Your task to perform on an android device: Go to sound settings Image 0: 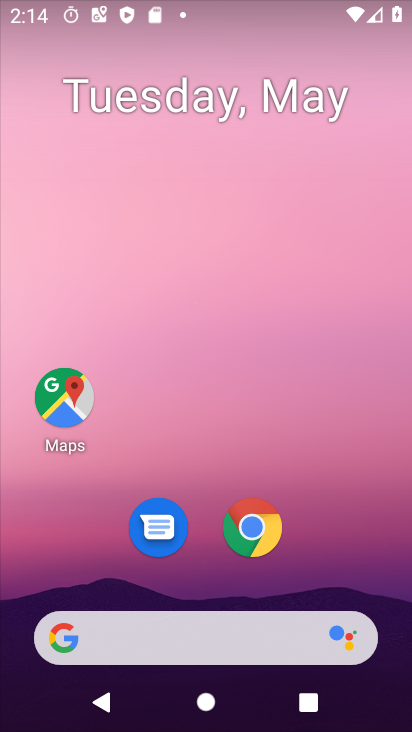
Step 0: drag from (233, 657) to (249, 115)
Your task to perform on an android device: Go to sound settings Image 1: 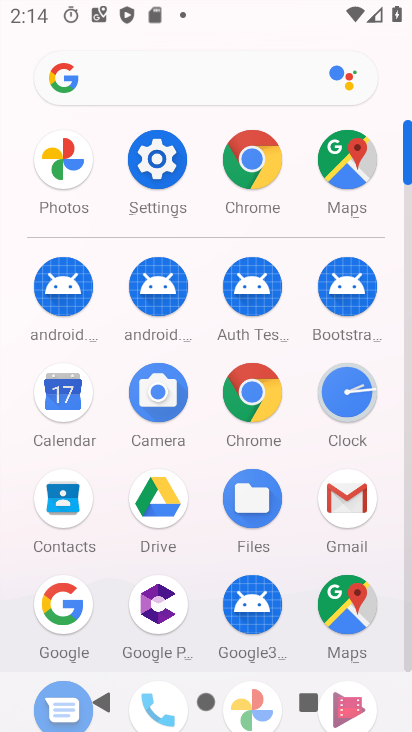
Step 1: click (155, 182)
Your task to perform on an android device: Go to sound settings Image 2: 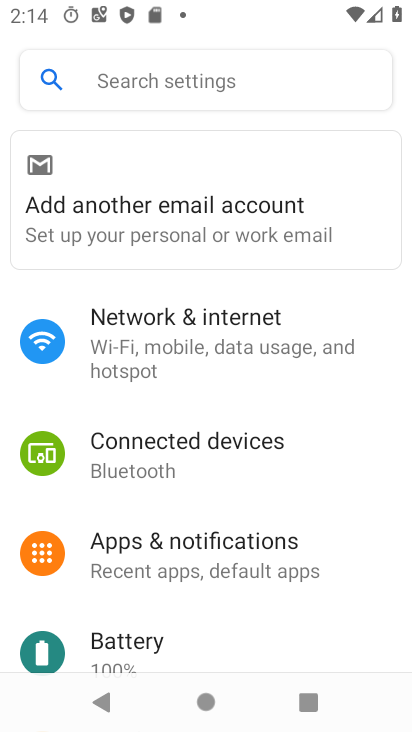
Step 2: click (167, 87)
Your task to perform on an android device: Go to sound settings Image 3: 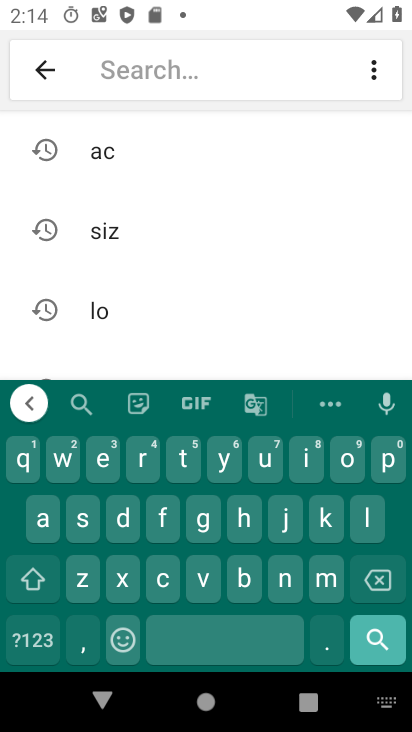
Step 3: click (82, 517)
Your task to perform on an android device: Go to sound settings Image 4: 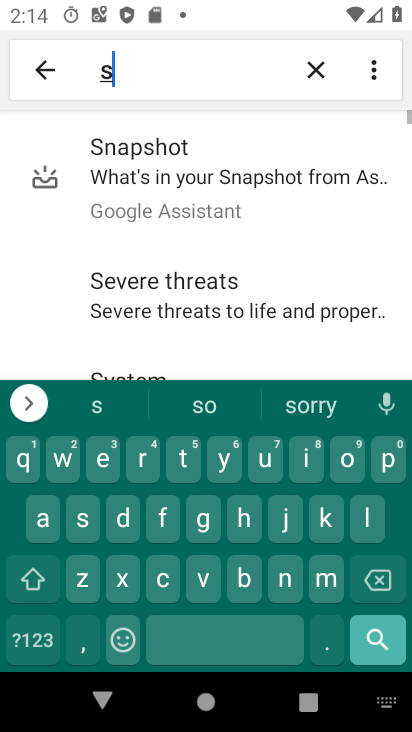
Step 4: click (345, 457)
Your task to perform on an android device: Go to sound settings Image 5: 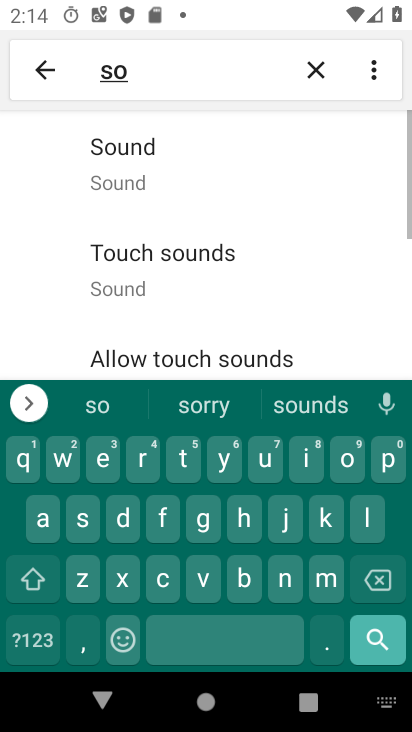
Step 5: click (154, 174)
Your task to perform on an android device: Go to sound settings Image 6: 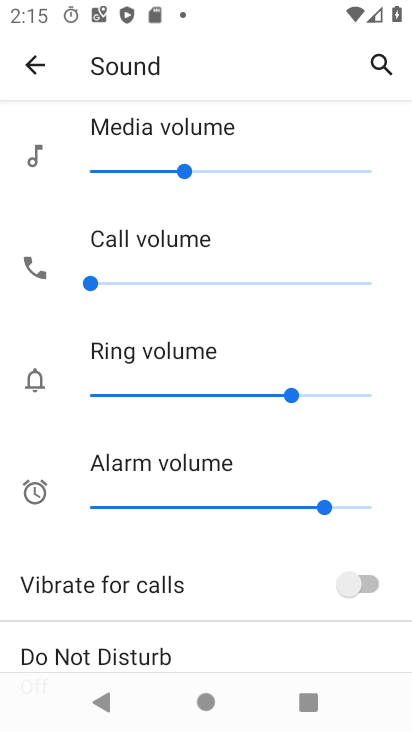
Step 6: task complete